Your task to perform on an android device: change the clock display to analog Image 0: 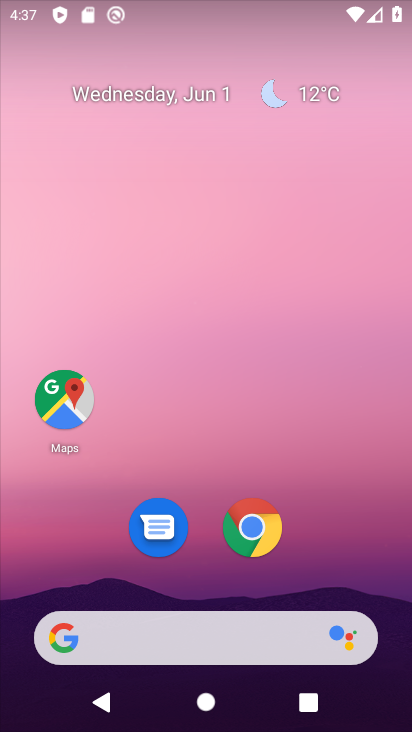
Step 0: drag from (238, 101) to (237, 1)
Your task to perform on an android device: change the clock display to analog Image 1: 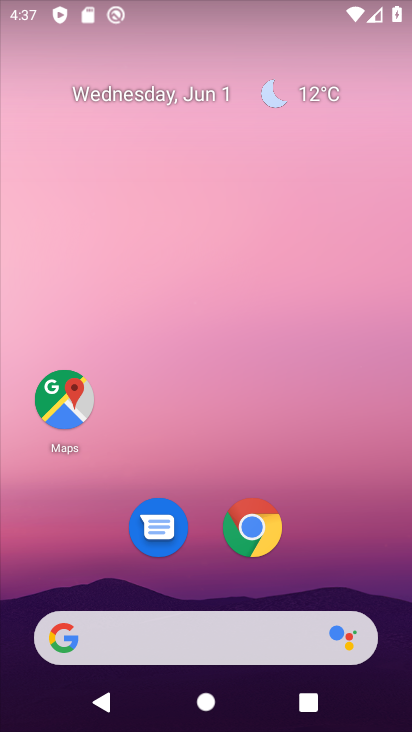
Step 1: drag from (198, 577) to (211, 64)
Your task to perform on an android device: change the clock display to analog Image 2: 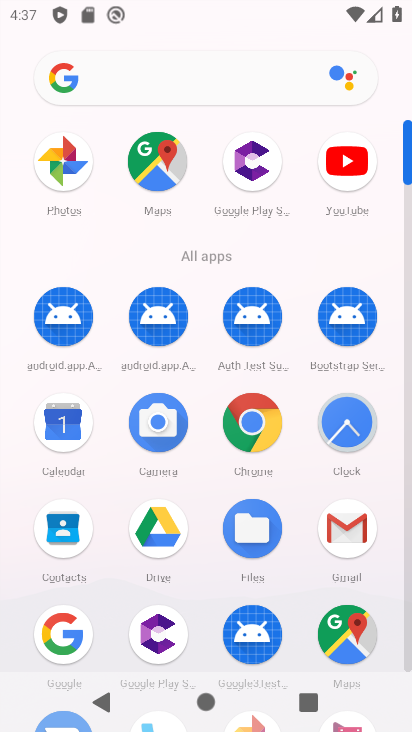
Step 2: click (355, 440)
Your task to perform on an android device: change the clock display to analog Image 3: 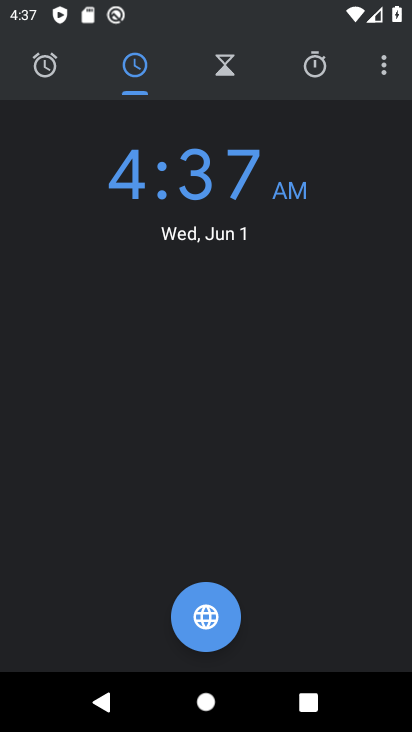
Step 3: click (389, 56)
Your task to perform on an android device: change the clock display to analog Image 4: 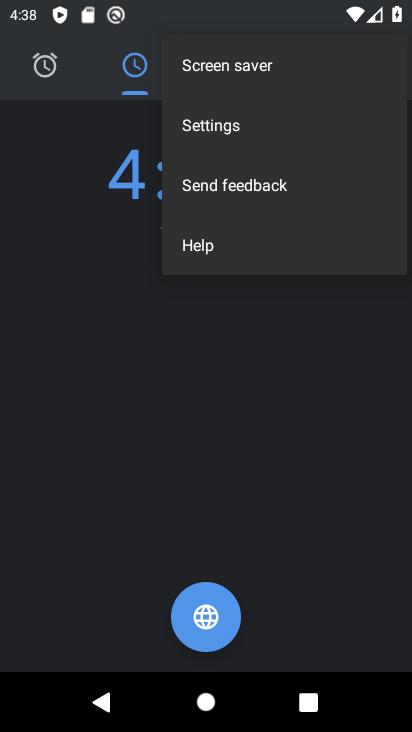
Step 4: click (204, 137)
Your task to perform on an android device: change the clock display to analog Image 5: 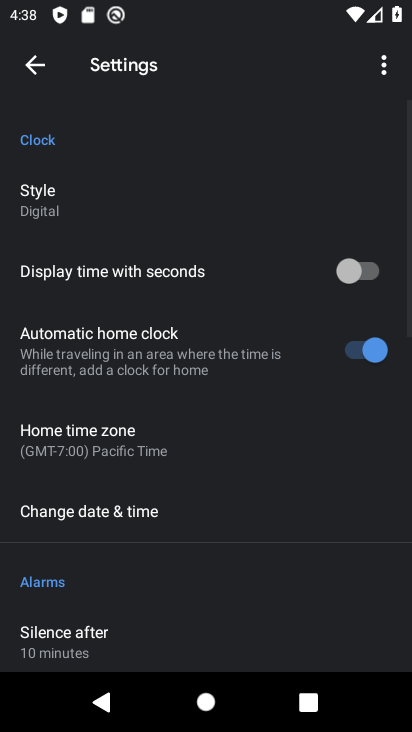
Step 5: click (109, 193)
Your task to perform on an android device: change the clock display to analog Image 6: 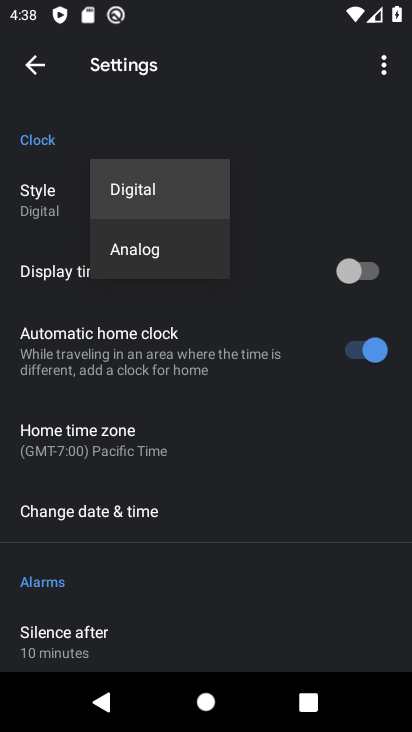
Step 6: click (140, 259)
Your task to perform on an android device: change the clock display to analog Image 7: 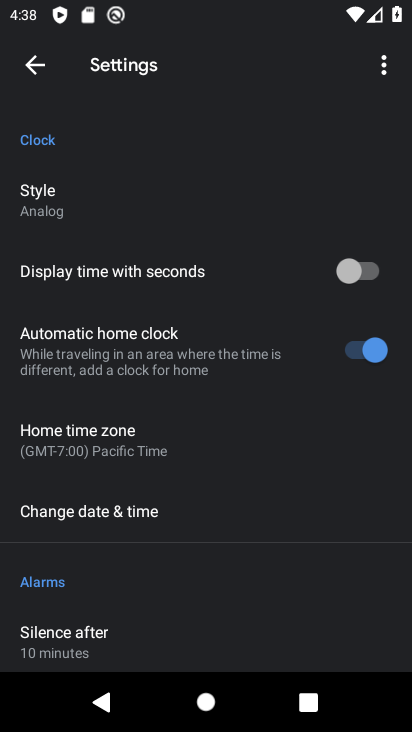
Step 7: task complete